Your task to perform on an android device: Go to location settings Image 0: 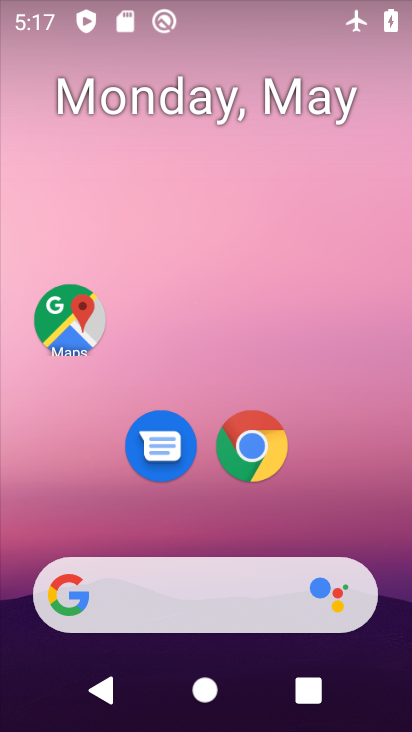
Step 0: drag from (322, 497) to (231, 90)
Your task to perform on an android device: Go to location settings Image 1: 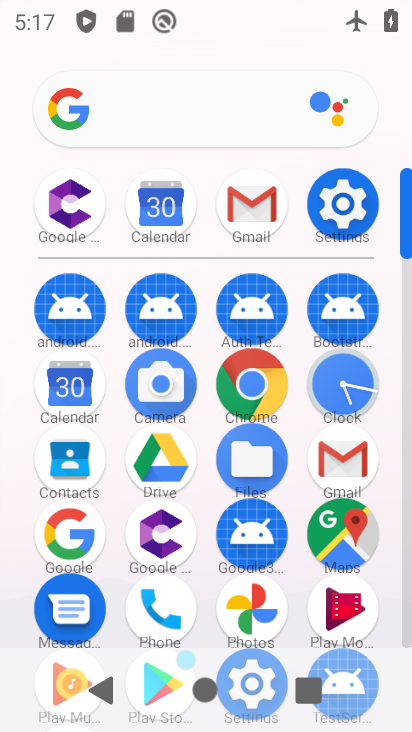
Step 1: click (343, 205)
Your task to perform on an android device: Go to location settings Image 2: 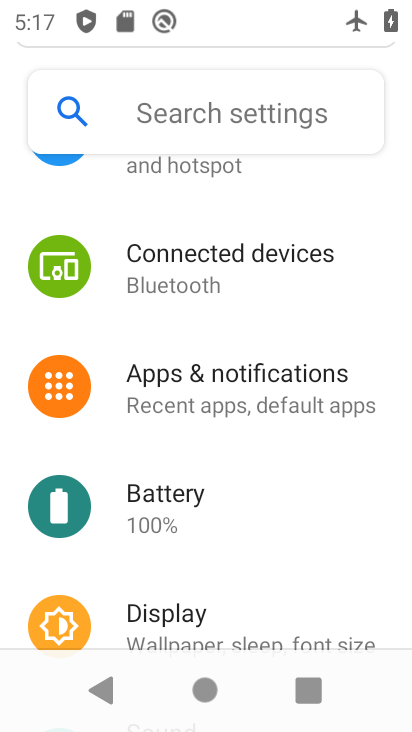
Step 2: drag from (251, 336) to (287, 730)
Your task to perform on an android device: Go to location settings Image 3: 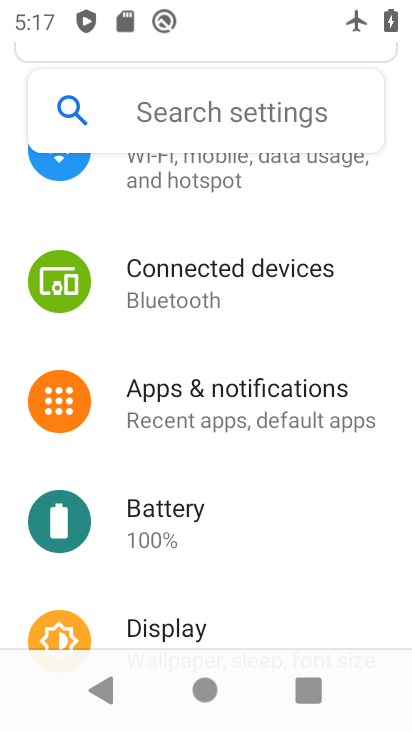
Step 3: drag from (292, 550) to (208, 217)
Your task to perform on an android device: Go to location settings Image 4: 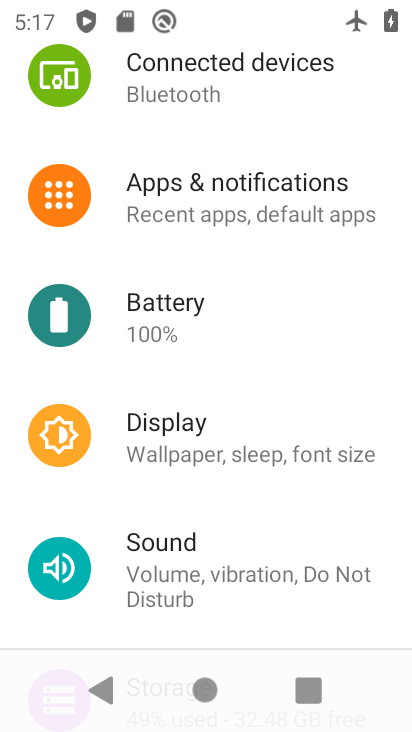
Step 4: drag from (241, 482) to (190, 135)
Your task to perform on an android device: Go to location settings Image 5: 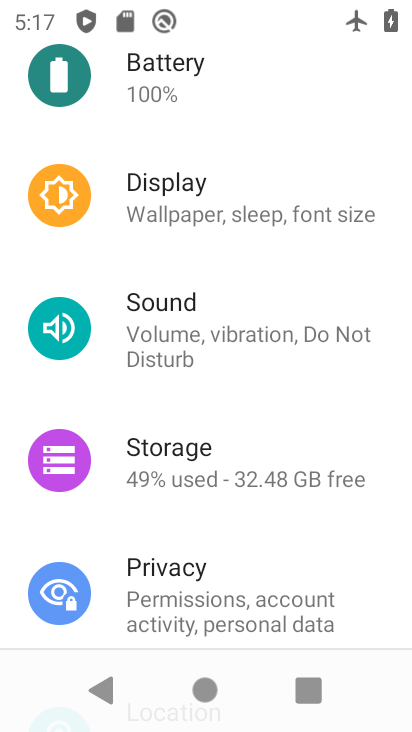
Step 5: drag from (225, 518) to (181, 206)
Your task to perform on an android device: Go to location settings Image 6: 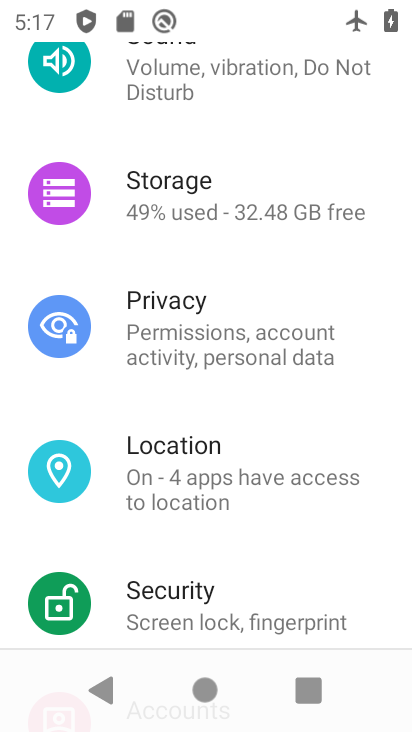
Step 6: click (184, 451)
Your task to perform on an android device: Go to location settings Image 7: 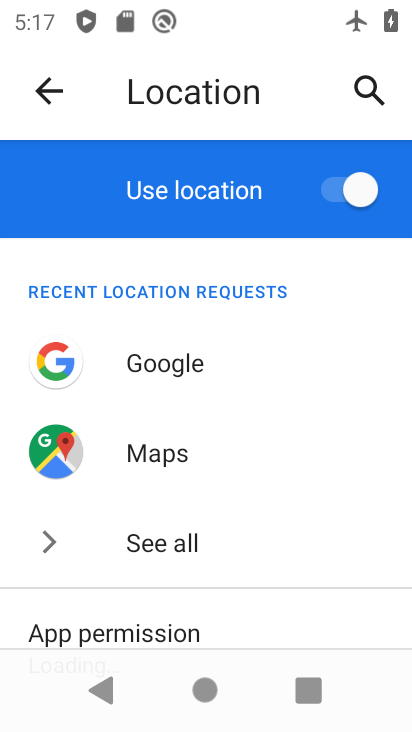
Step 7: task complete